Your task to perform on an android device: Set an alarm for 2pm Image 0: 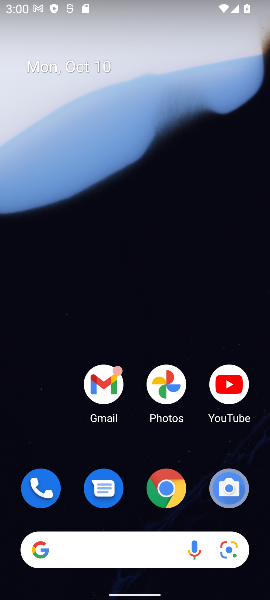
Step 0: drag from (158, 517) to (189, 17)
Your task to perform on an android device: Set an alarm for 2pm Image 1: 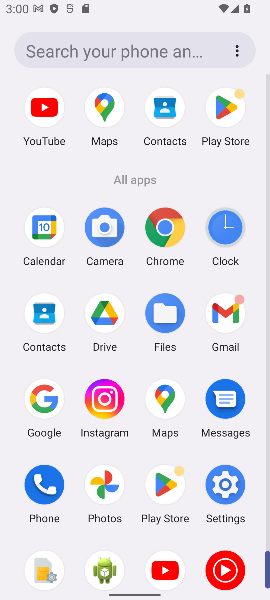
Step 1: click (225, 232)
Your task to perform on an android device: Set an alarm for 2pm Image 2: 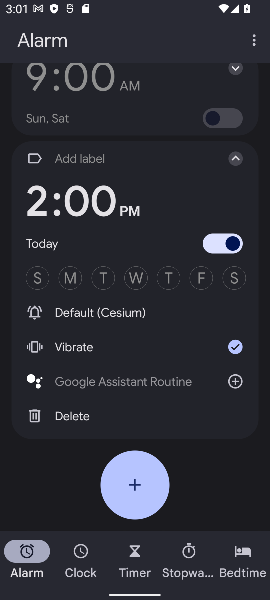
Step 2: task complete